Your task to perform on an android device: Go to wifi settings Image 0: 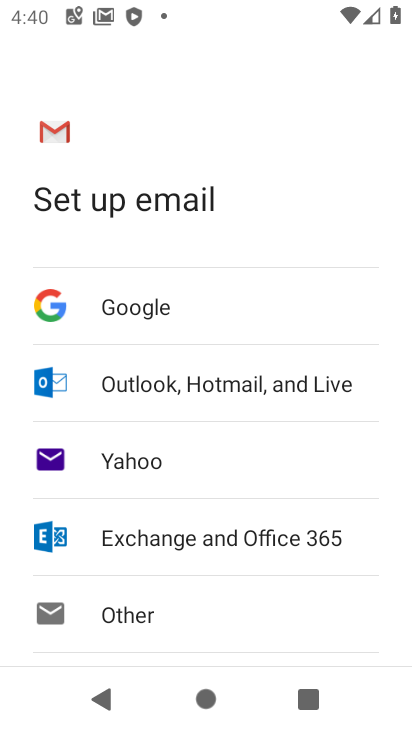
Step 0: press home button
Your task to perform on an android device: Go to wifi settings Image 1: 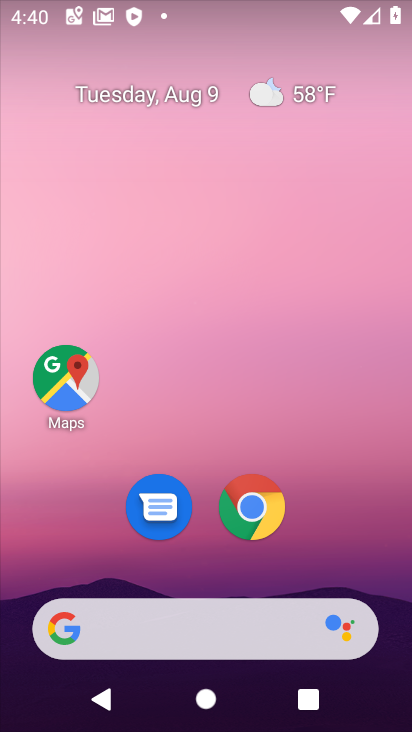
Step 1: drag from (211, 568) to (211, 74)
Your task to perform on an android device: Go to wifi settings Image 2: 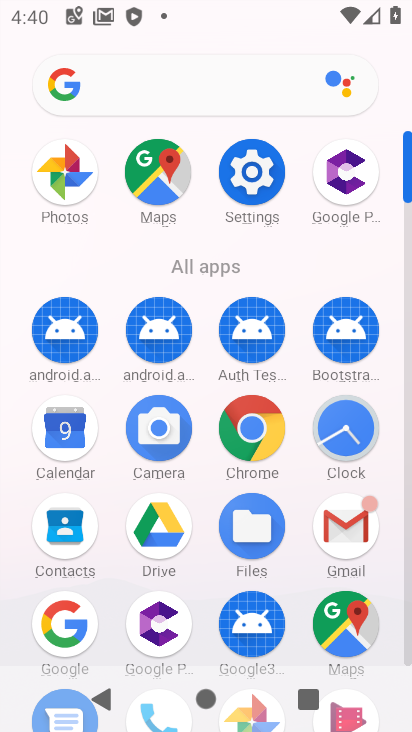
Step 2: click (251, 164)
Your task to perform on an android device: Go to wifi settings Image 3: 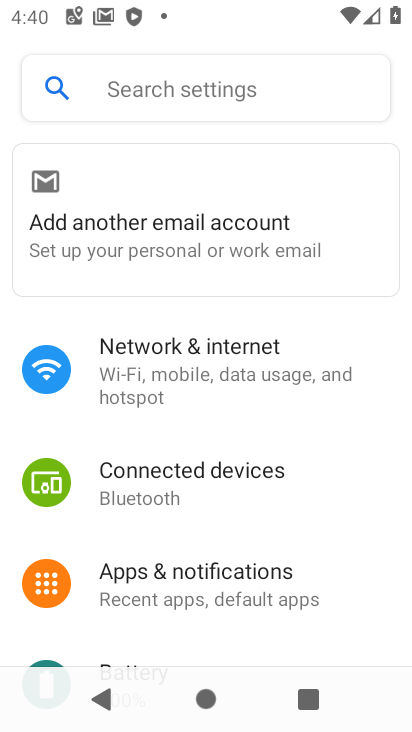
Step 3: click (148, 381)
Your task to perform on an android device: Go to wifi settings Image 4: 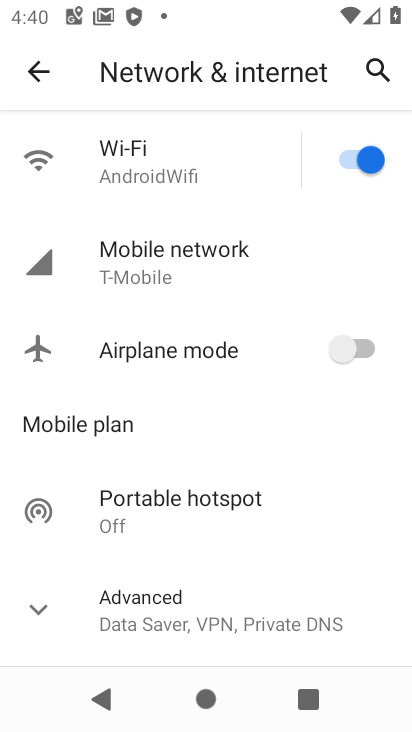
Step 4: click (94, 154)
Your task to perform on an android device: Go to wifi settings Image 5: 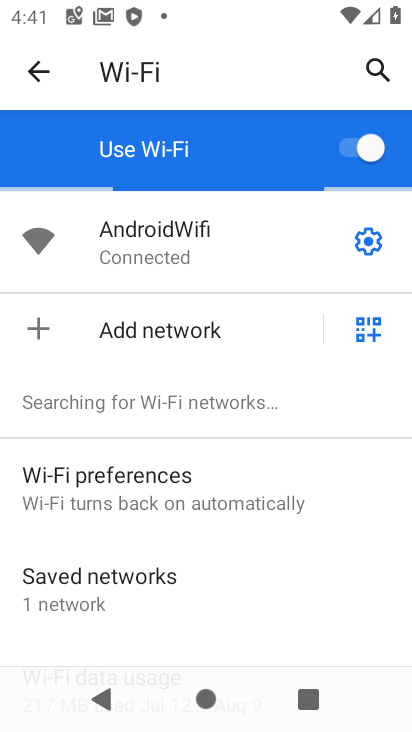
Step 5: task complete